Your task to perform on an android device: Go to wifi settings Image 0: 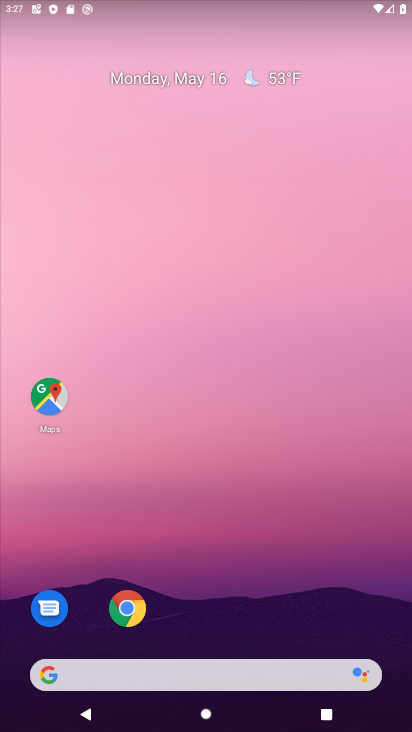
Step 0: drag from (280, 574) to (181, 125)
Your task to perform on an android device: Go to wifi settings Image 1: 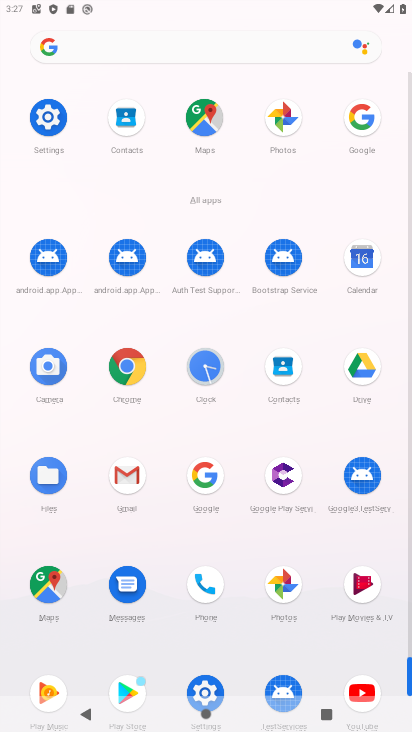
Step 1: click (46, 116)
Your task to perform on an android device: Go to wifi settings Image 2: 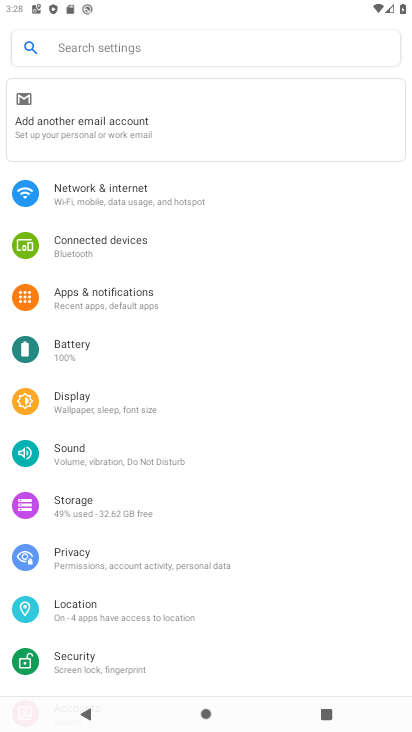
Step 2: click (105, 189)
Your task to perform on an android device: Go to wifi settings Image 3: 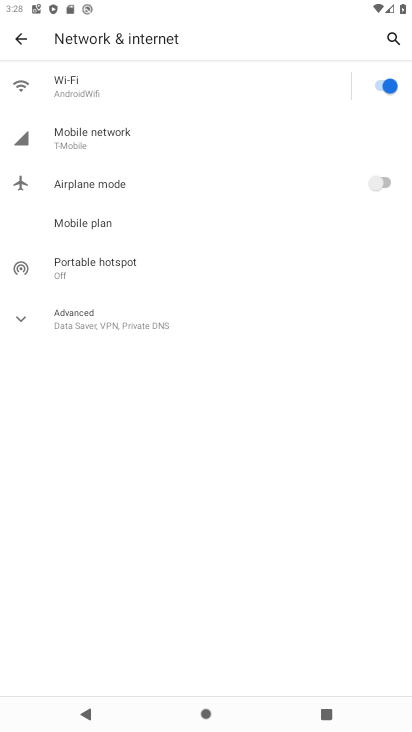
Step 3: click (74, 85)
Your task to perform on an android device: Go to wifi settings Image 4: 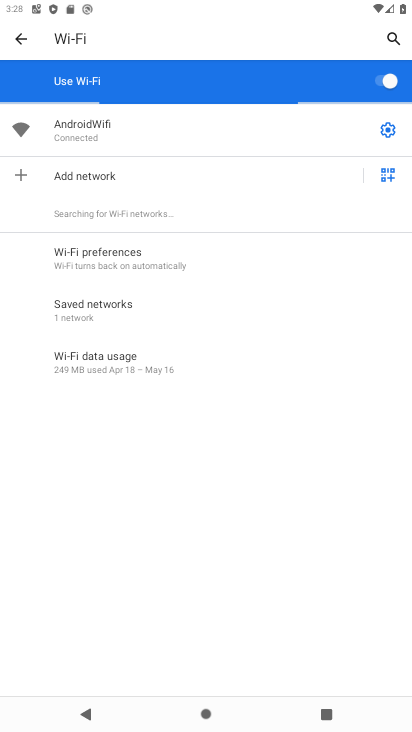
Step 4: click (387, 127)
Your task to perform on an android device: Go to wifi settings Image 5: 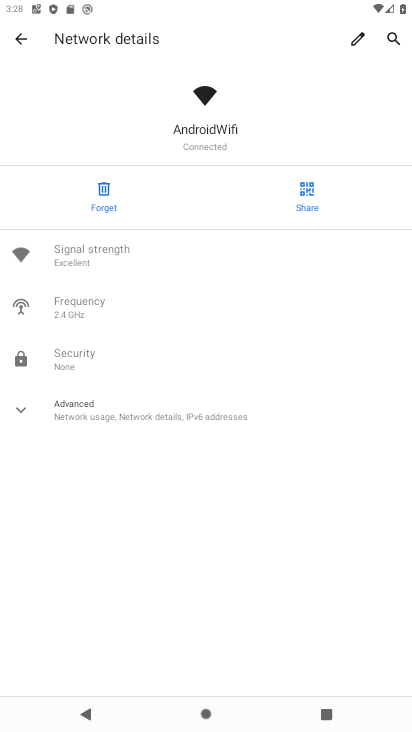
Step 5: task complete